Your task to perform on an android device: find which apps use the phone's location Image 0: 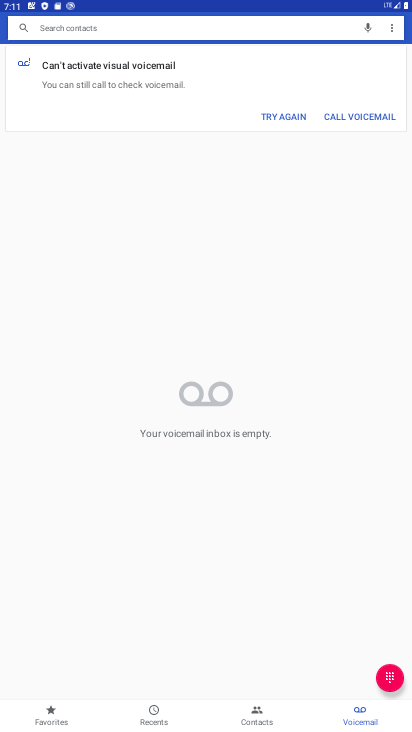
Step 0: press home button
Your task to perform on an android device: find which apps use the phone's location Image 1: 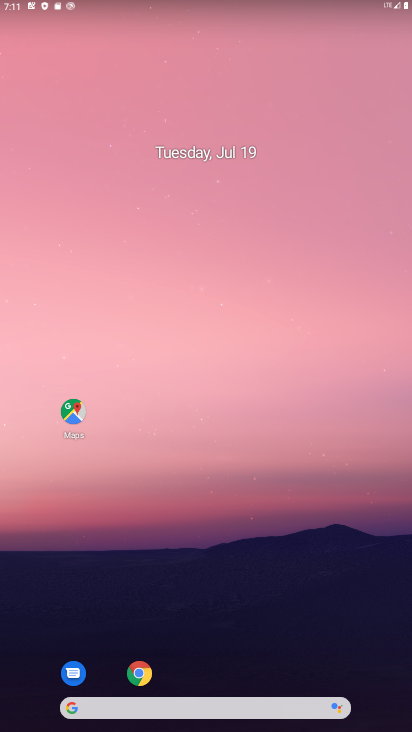
Step 1: drag from (379, 692) to (253, 11)
Your task to perform on an android device: find which apps use the phone's location Image 2: 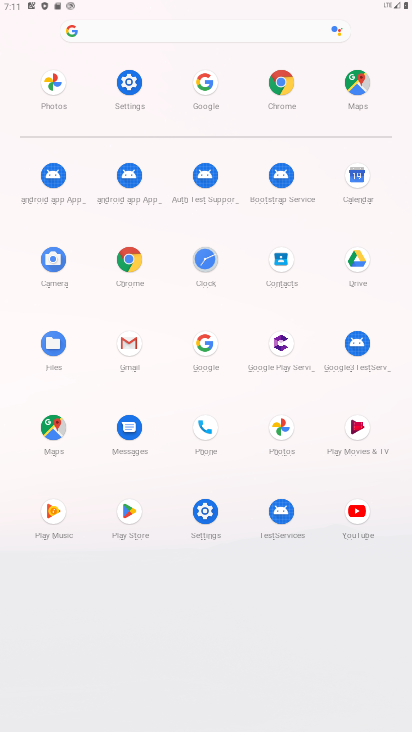
Step 2: click (206, 508)
Your task to perform on an android device: find which apps use the phone's location Image 3: 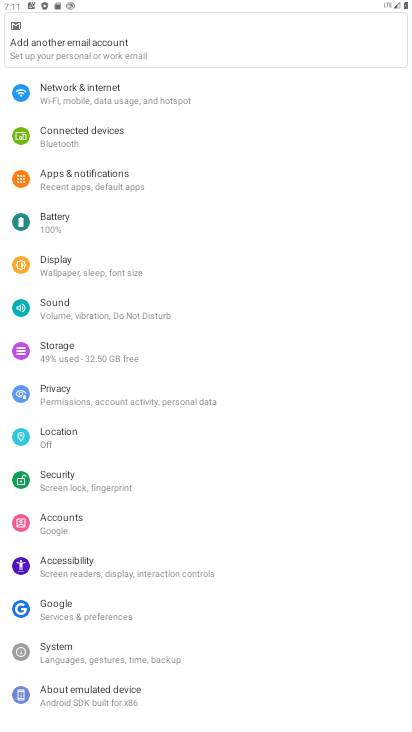
Step 3: click (70, 442)
Your task to perform on an android device: find which apps use the phone's location Image 4: 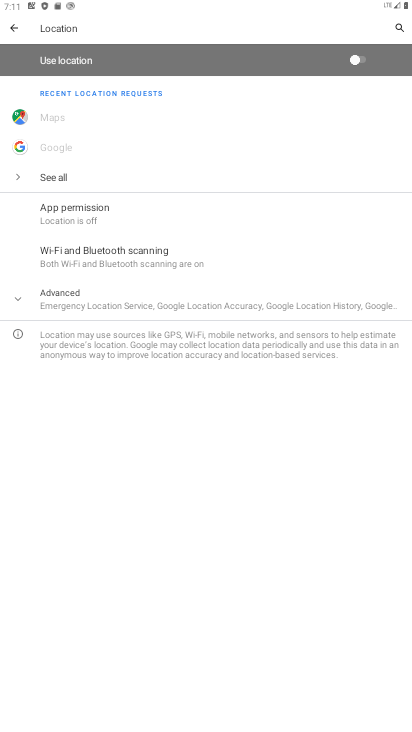
Step 4: click (67, 207)
Your task to perform on an android device: find which apps use the phone's location Image 5: 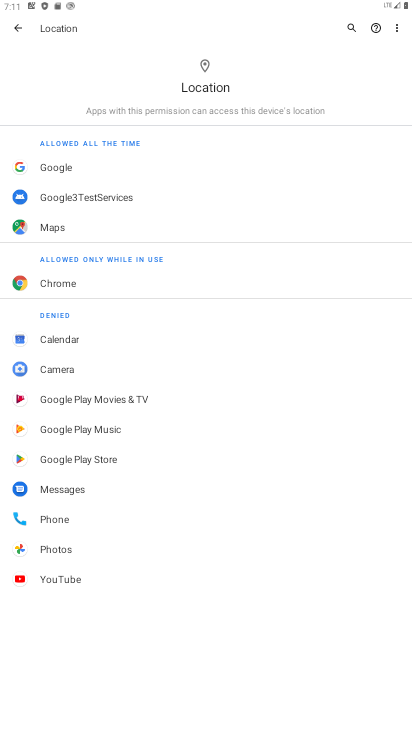
Step 5: click (37, 516)
Your task to perform on an android device: find which apps use the phone's location Image 6: 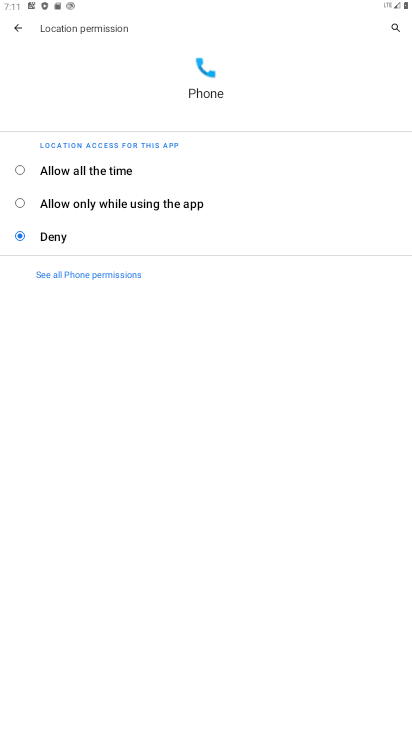
Step 6: click (23, 163)
Your task to perform on an android device: find which apps use the phone's location Image 7: 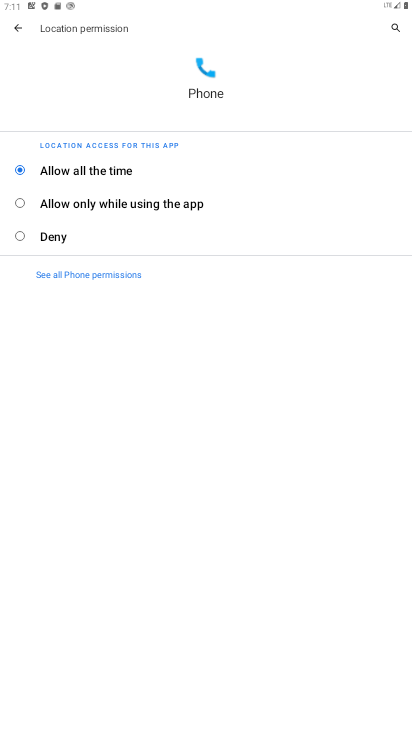
Step 7: task complete